Your task to perform on an android device: toggle pop-ups in chrome Image 0: 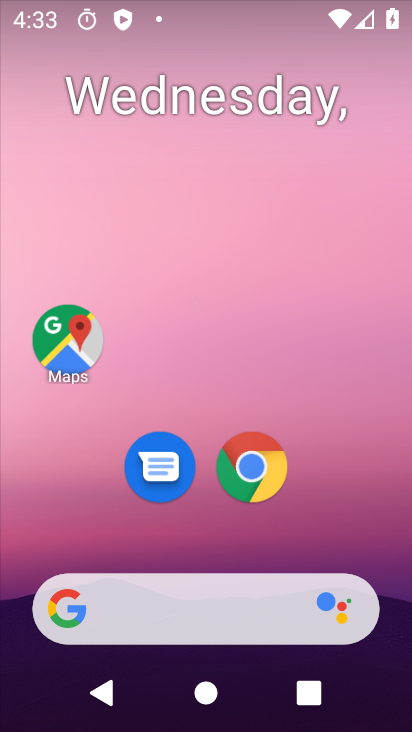
Step 0: click (250, 460)
Your task to perform on an android device: toggle pop-ups in chrome Image 1: 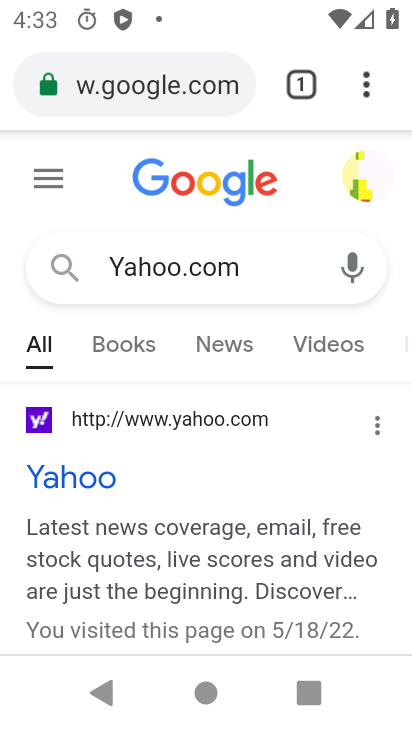
Step 1: click (367, 79)
Your task to perform on an android device: toggle pop-ups in chrome Image 2: 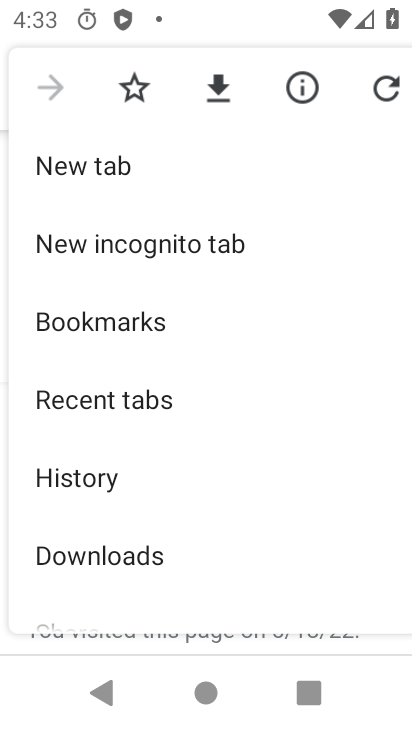
Step 2: drag from (259, 566) to (269, 219)
Your task to perform on an android device: toggle pop-ups in chrome Image 3: 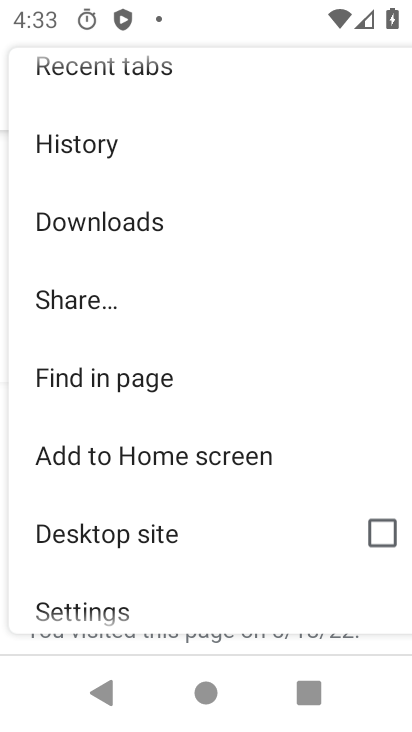
Step 3: drag from (282, 598) to (283, 322)
Your task to perform on an android device: toggle pop-ups in chrome Image 4: 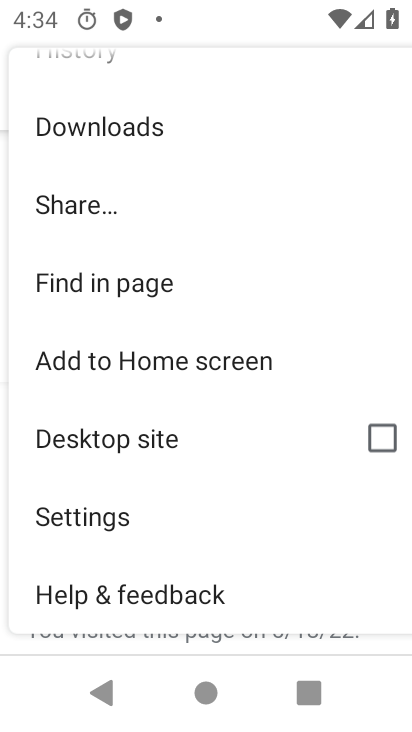
Step 4: click (82, 513)
Your task to perform on an android device: toggle pop-ups in chrome Image 5: 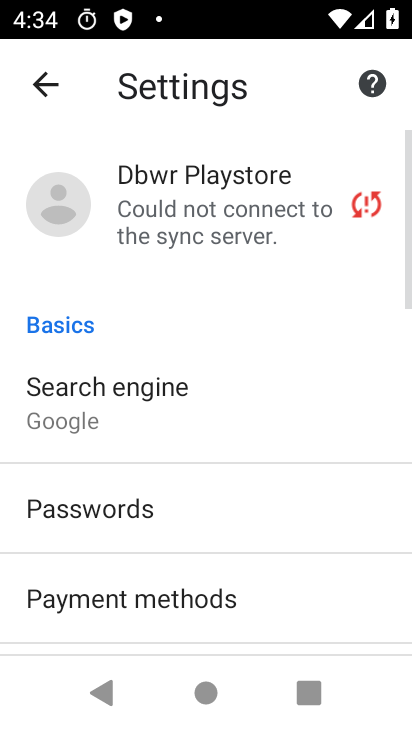
Step 5: drag from (271, 618) to (299, 114)
Your task to perform on an android device: toggle pop-ups in chrome Image 6: 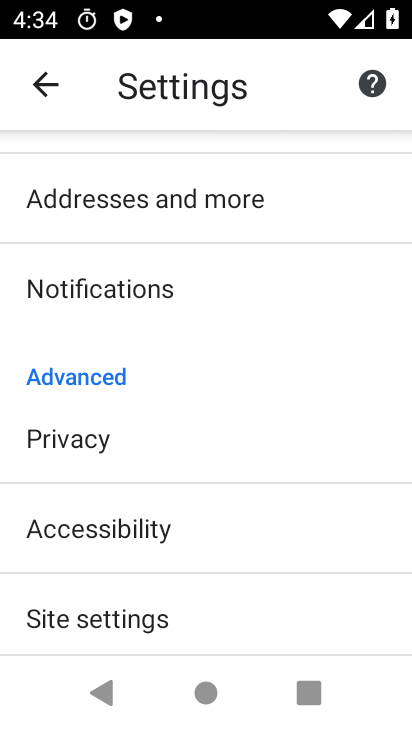
Step 6: click (88, 616)
Your task to perform on an android device: toggle pop-ups in chrome Image 7: 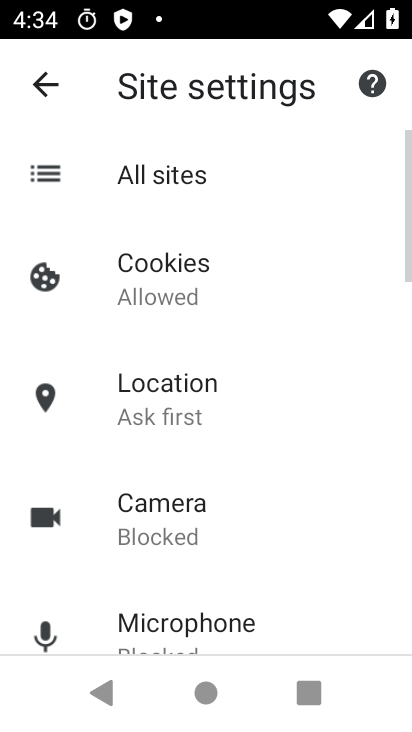
Step 7: drag from (322, 627) to (347, 142)
Your task to perform on an android device: toggle pop-ups in chrome Image 8: 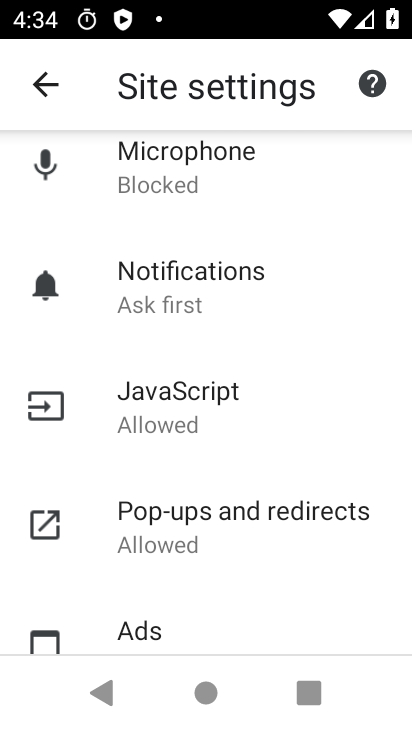
Step 8: click (153, 518)
Your task to perform on an android device: toggle pop-ups in chrome Image 9: 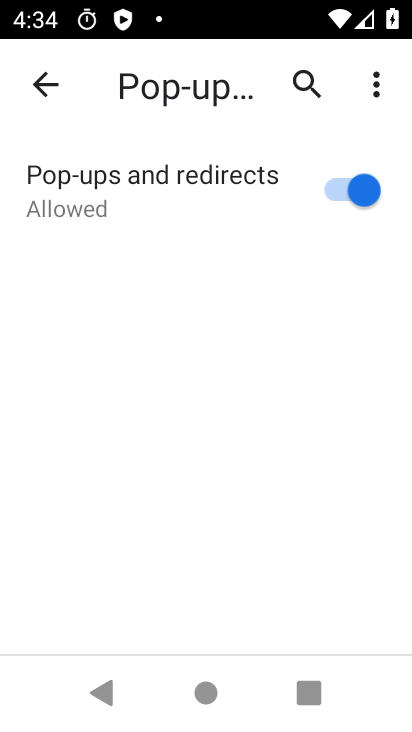
Step 9: click (329, 187)
Your task to perform on an android device: toggle pop-ups in chrome Image 10: 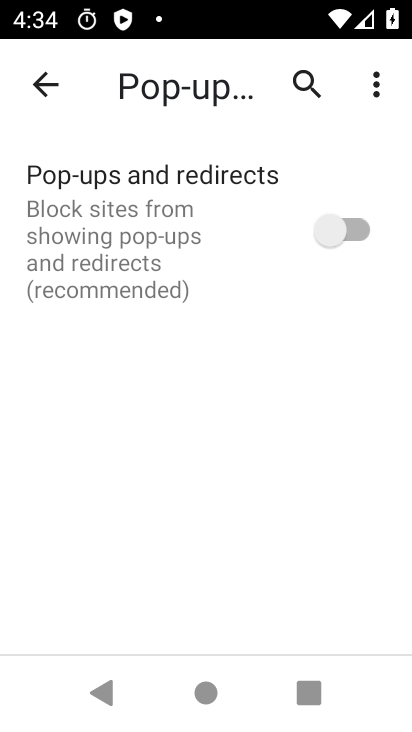
Step 10: task complete